Your task to perform on an android device: Open the calendar and show me this week's events? Image 0: 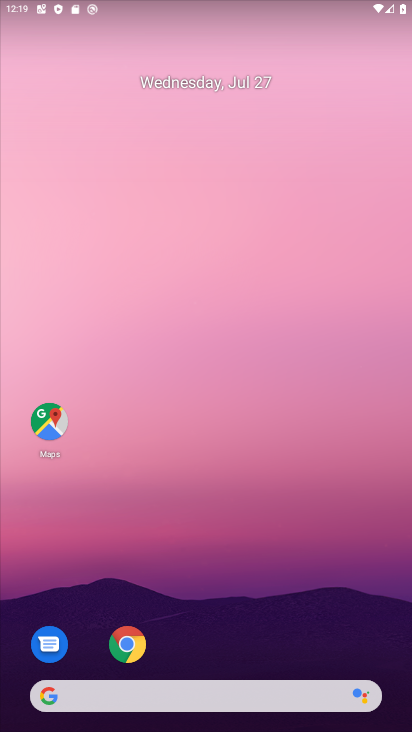
Step 0: press home button
Your task to perform on an android device: Open the calendar and show me this week's events? Image 1: 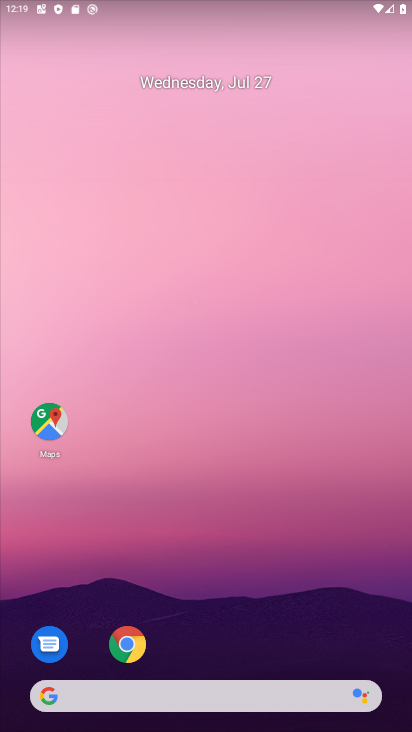
Step 1: drag from (202, 639) to (178, 109)
Your task to perform on an android device: Open the calendar and show me this week's events? Image 2: 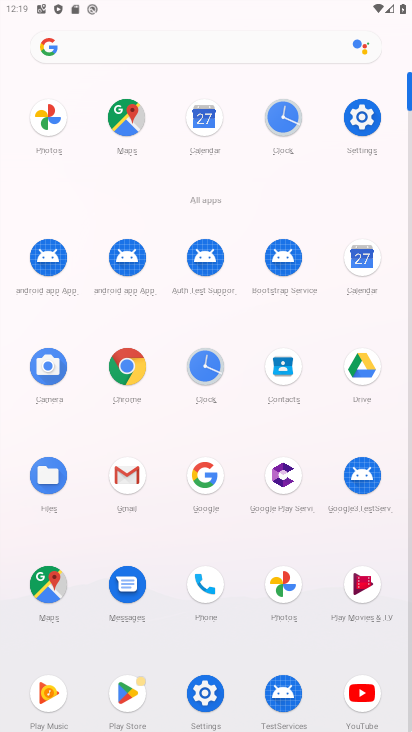
Step 2: click (374, 285)
Your task to perform on an android device: Open the calendar and show me this week's events? Image 3: 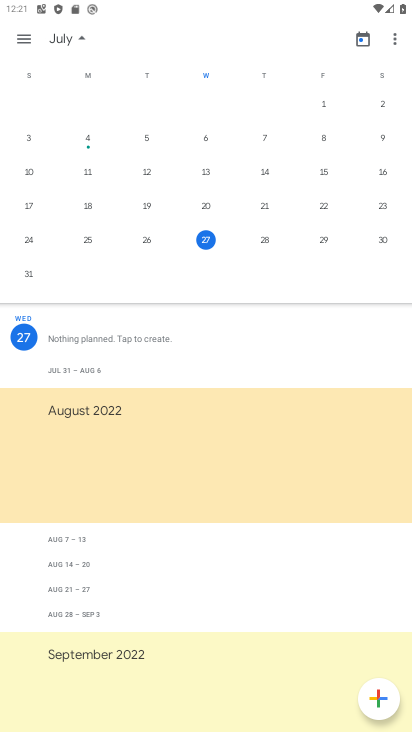
Step 3: click (373, 243)
Your task to perform on an android device: Open the calendar and show me this week's events? Image 4: 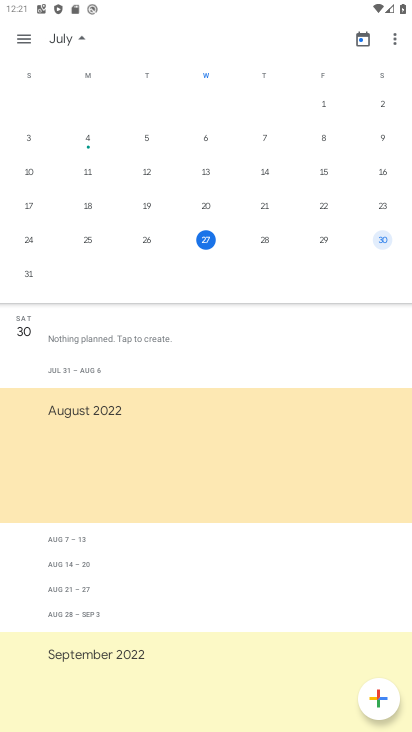
Step 4: task complete